Your task to perform on an android device: Open the calendar app, open the side menu, and click the "Day" option Image 0: 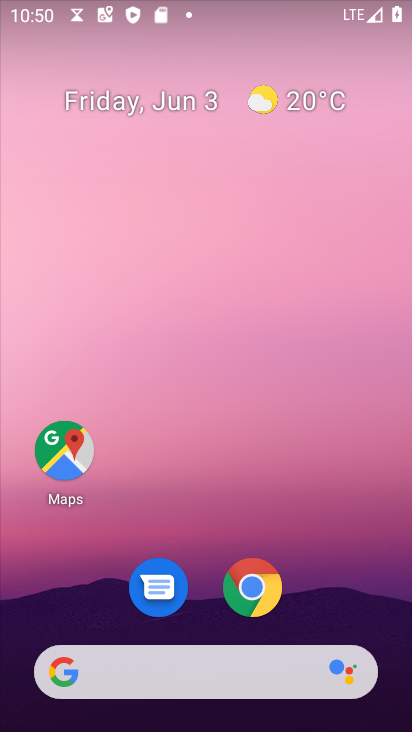
Step 0: press home button
Your task to perform on an android device: Open the calendar app, open the side menu, and click the "Day" option Image 1: 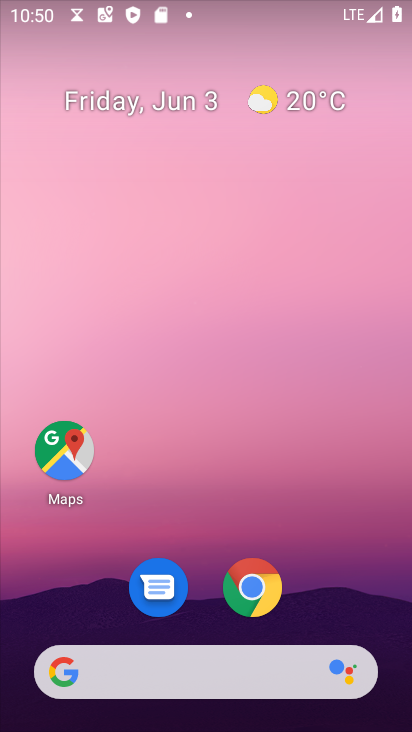
Step 1: drag from (332, 498) to (113, 54)
Your task to perform on an android device: Open the calendar app, open the side menu, and click the "Day" option Image 2: 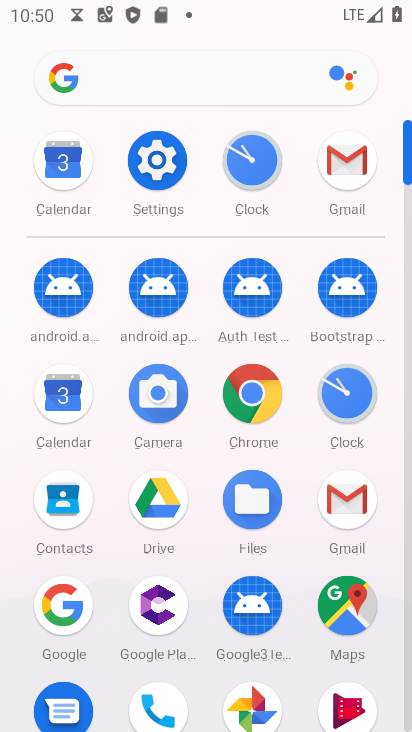
Step 2: click (64, 162)
Your task to perform on an android device: Open the calendar app, open the side menu, and click the "Day" option Image 3: 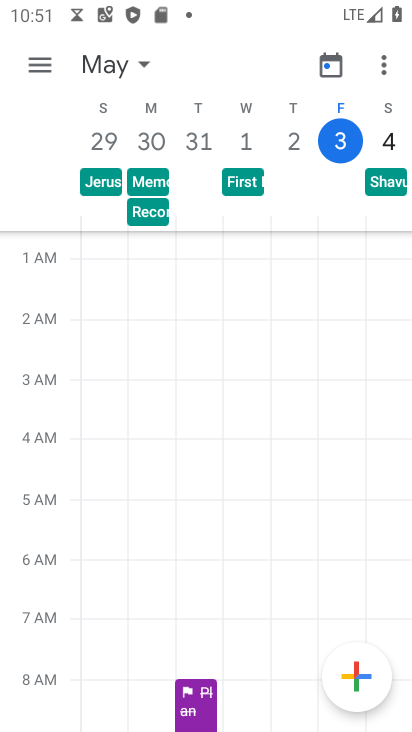
Step 3: click (46, 69)
Your task to perform on an android device: Open the calendar app, open the side menu, and click the "Day" option Image 4: 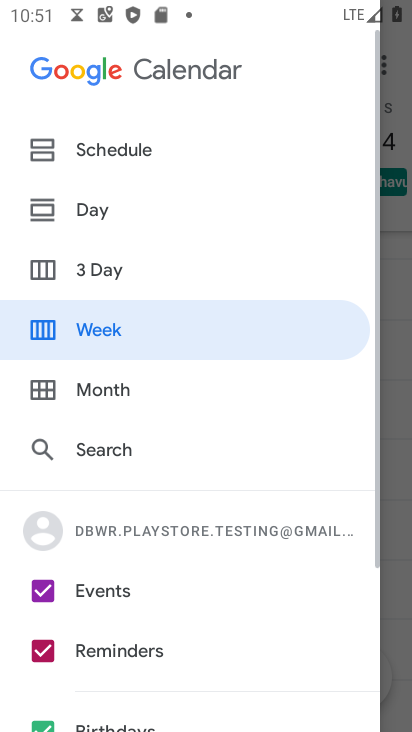
Step 4: click (95, 204)
Your task to perform on an android device: Open the calendar app, open the side menu, and click the "Day" option Image 5: 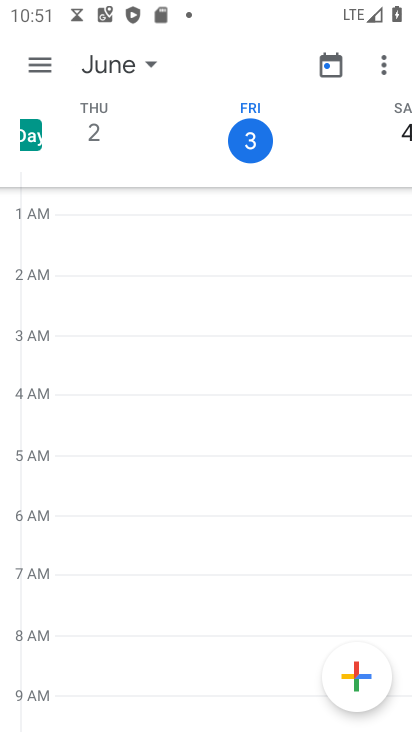
Step 5: task complete